Your task to perform on an android device: Open network settings Image 0: 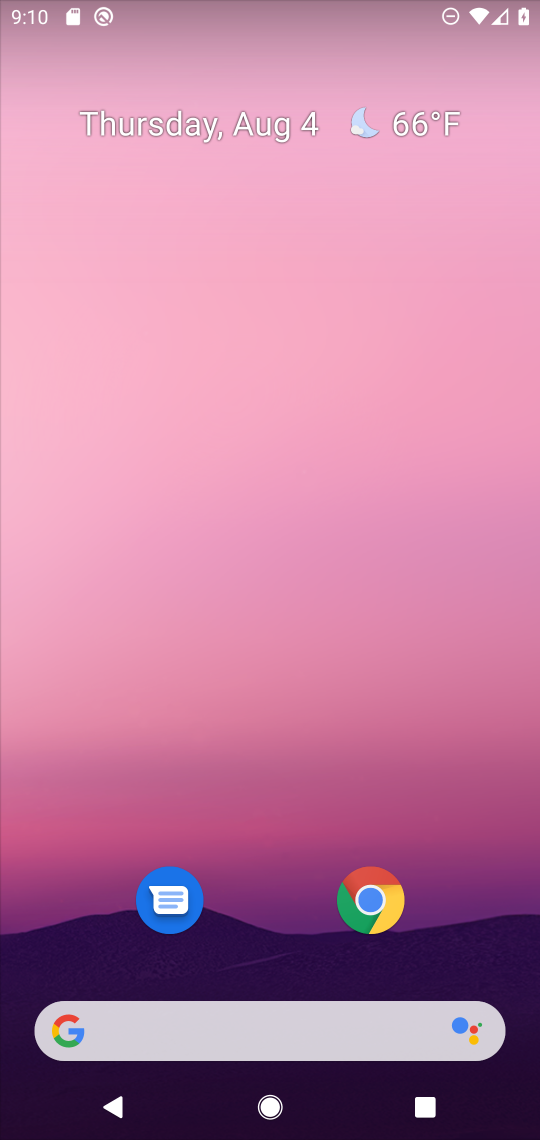
Step 0: drag from (223, 816) to (184, 142)
Your task to perform on an android device: Open network settings Image 1: 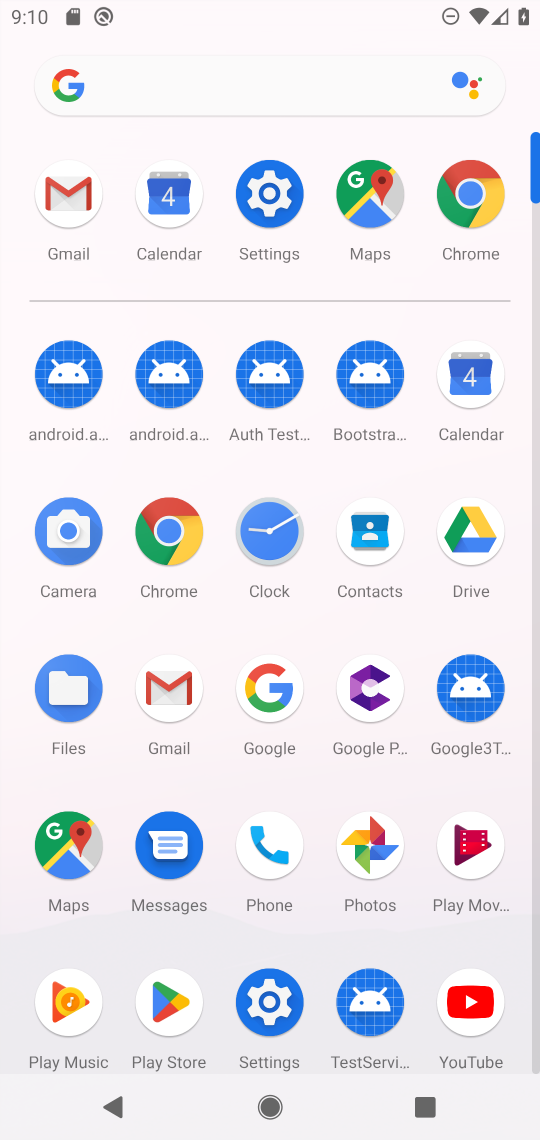
Step 1: click (264, 205)
Your task to perform on an android device: Open network settings Image 2: 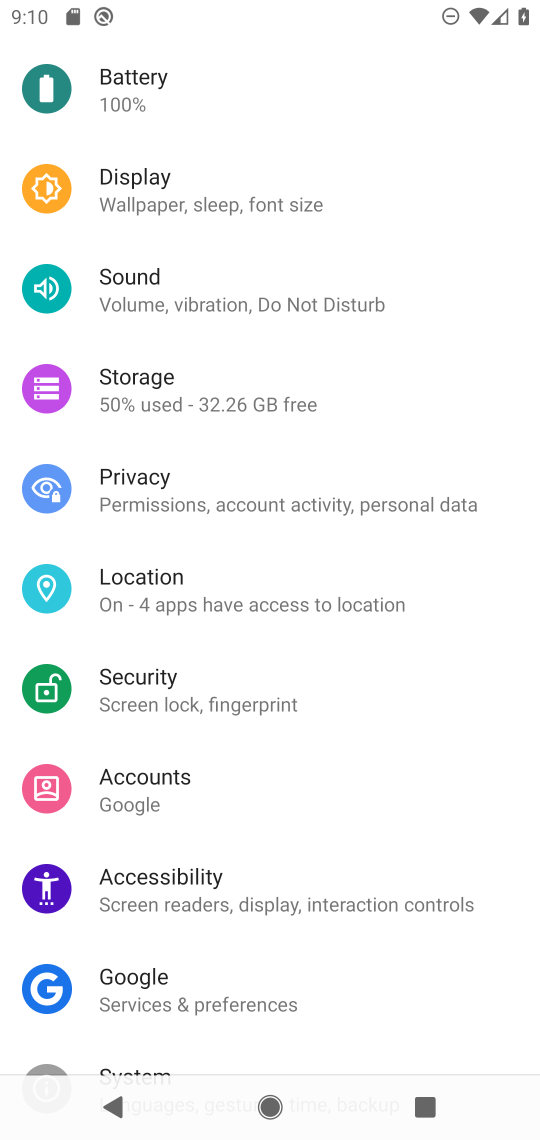
Step 2: drag from (252, 250) to (252, 784)
Your task to perform on an android device: Open network settings Image 3: 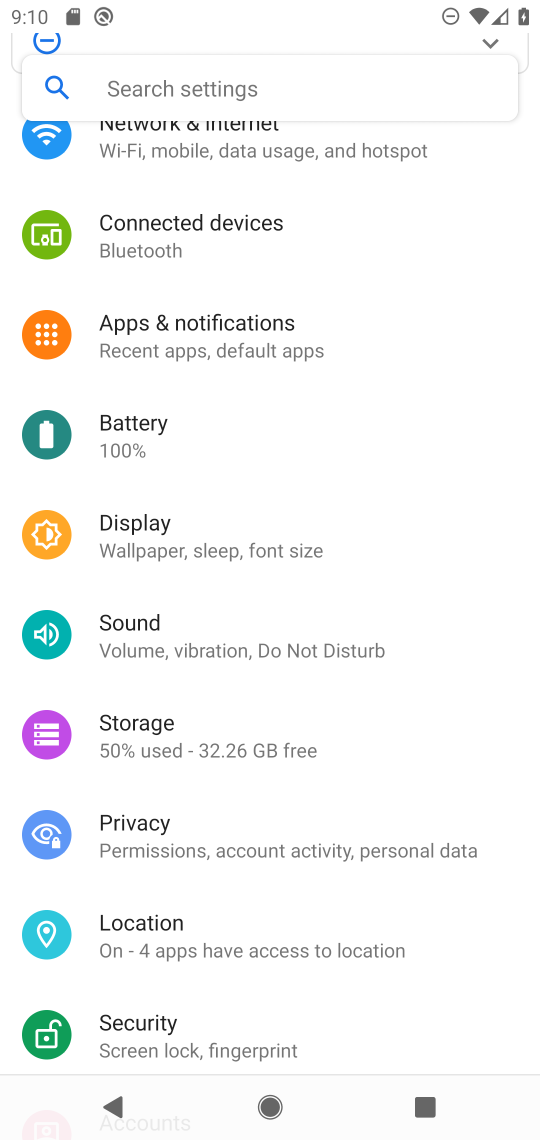
Step 3: drag from (273, 286) to (284, 607)
Your task to perform on an android device: Open network settings Image 4: 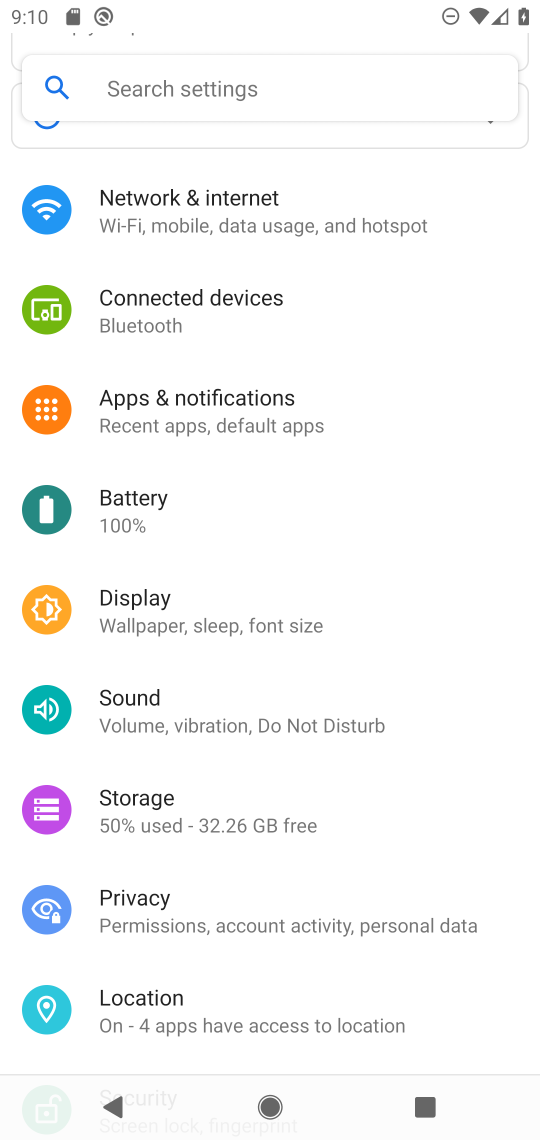
Step 4: click (292, 215)
Your task to perform on an android device: Open network settings Image 5: 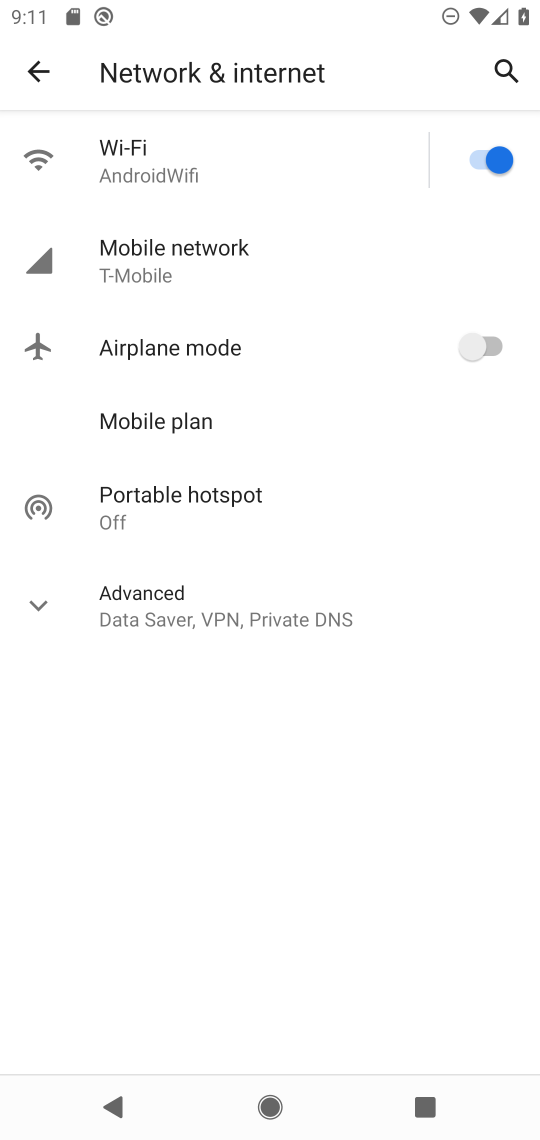
Step 5: task complete